Your task to perform on an android device: turn off notifications settings in the gmail app Image 0: 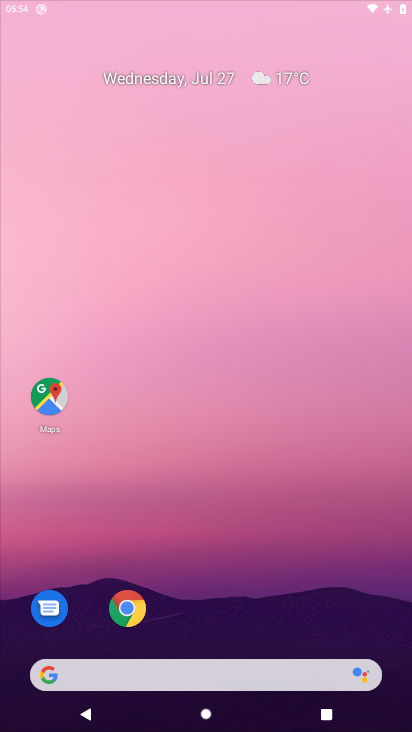
Step 0: press home button
Your task to perform on an android device: turn off notifications settings in the gmail app Image 1: 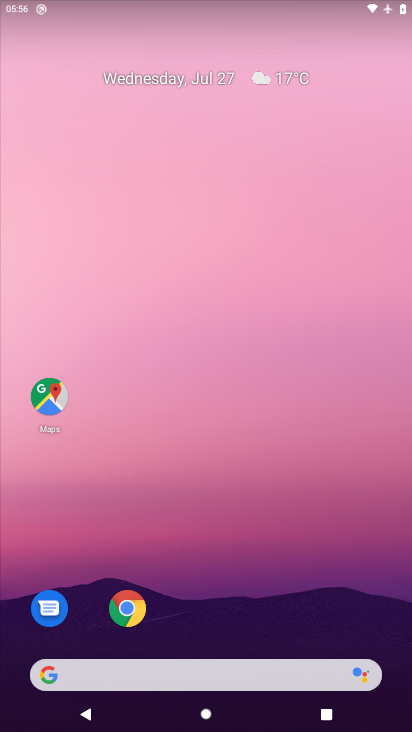
Step 1: drag from (217, 614) to (190, 284)
Your task to perform on an android device: turn off notifications settings in the gmail app Image 2: 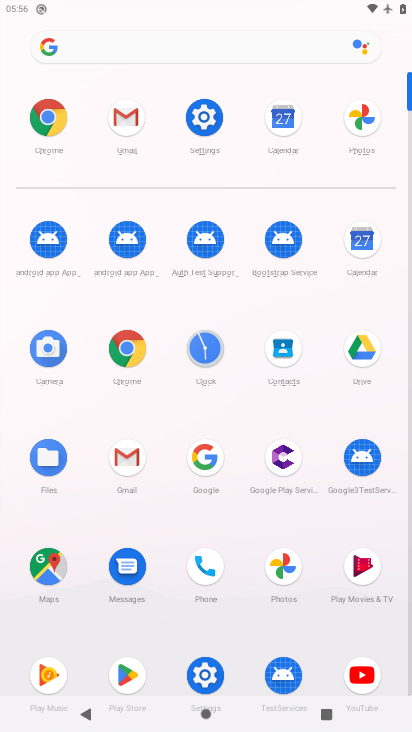
Step 2: click (115, 129)
Your task to perform on an android device: turn off notifications settings in the gmail app Image 3: 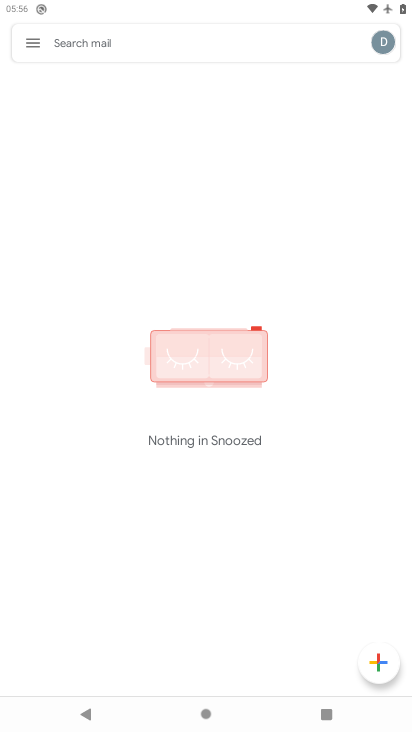
Step 3: click (36, 44)
Your task to perform on an android device: turn off notifications settings in the gmail app Image 4: 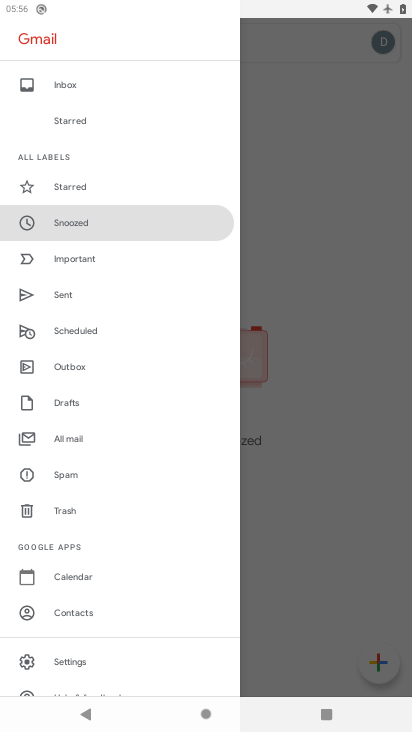
Step 4: click (73, 662)
Your task to perform on an android device: turn off notifications settings in the gmail app Image 5: 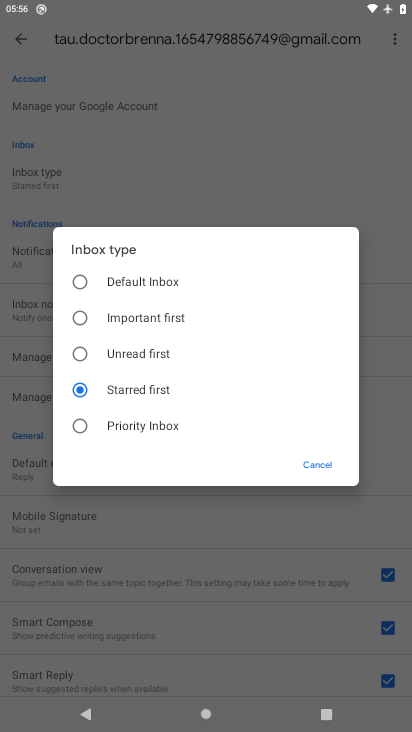
Step 5: click (322, 467)
Your task to perform on an android device: turn off notifications settings in the gmail app Image 6: 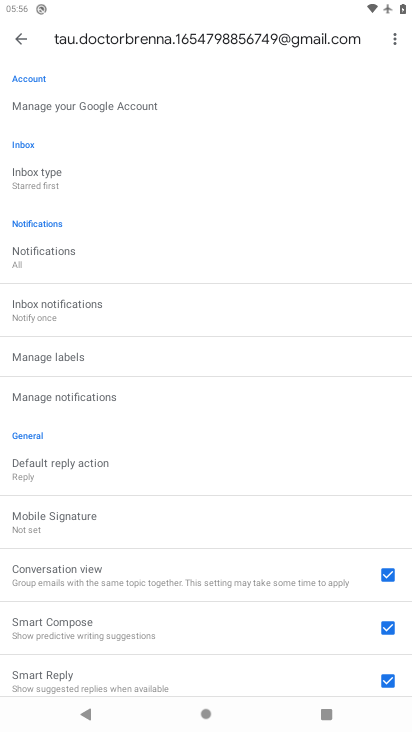
Step 6: click (65, 396)
Your task to perform on an android device: turn off notifications settings in the gmail app Image 7: 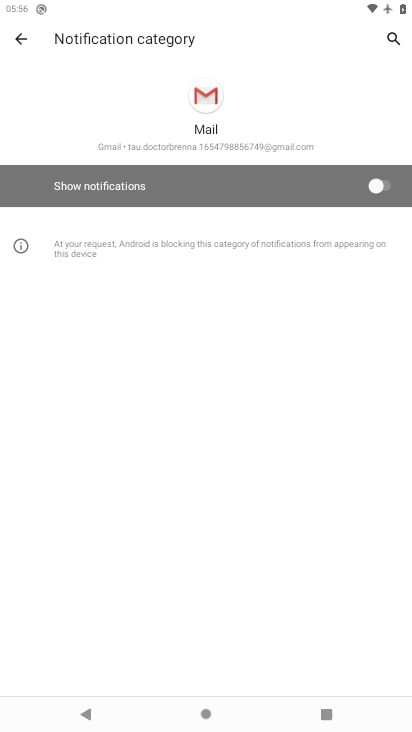
Step 7: task complete